Your task to perform on an android device: open sync settings in chrome Image 0: 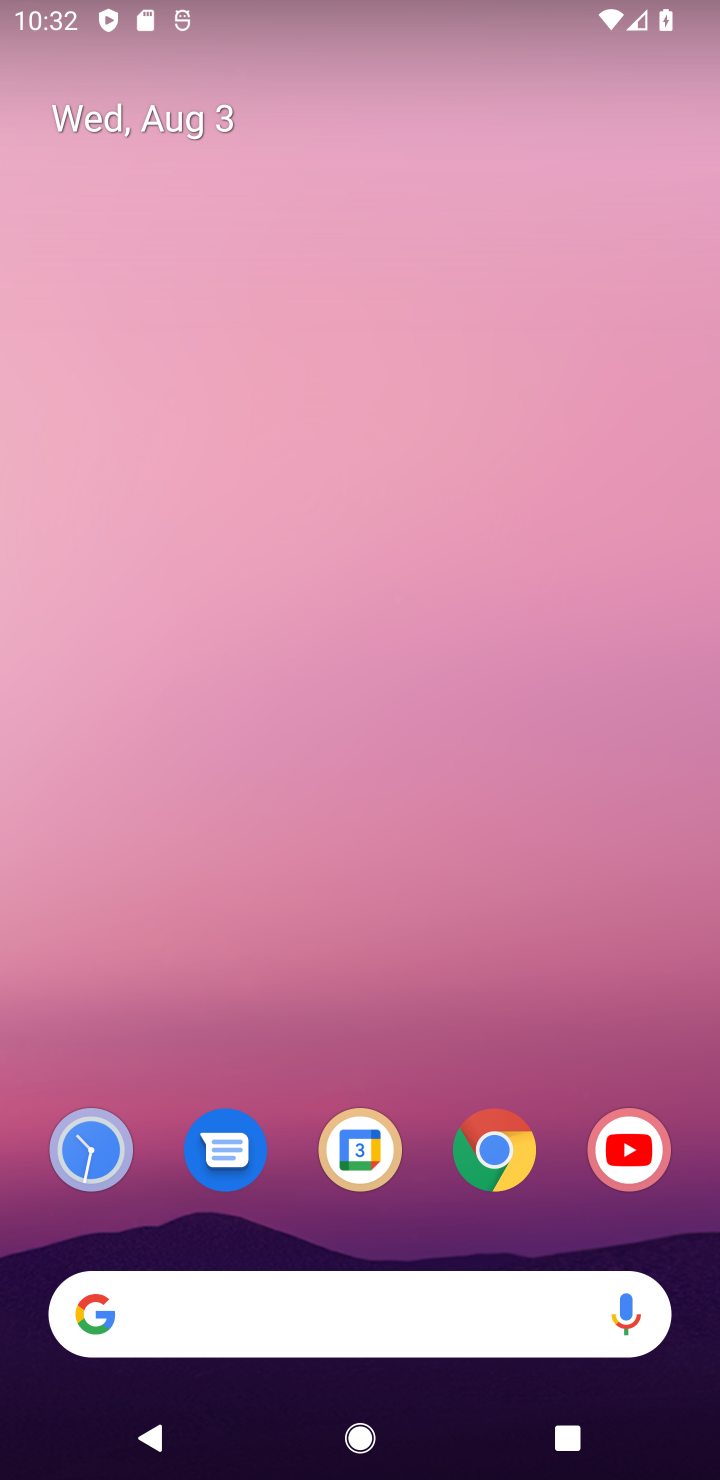
Step 0: press home button
Your task to perform on an android device: open sync settings in chrome Image 1: 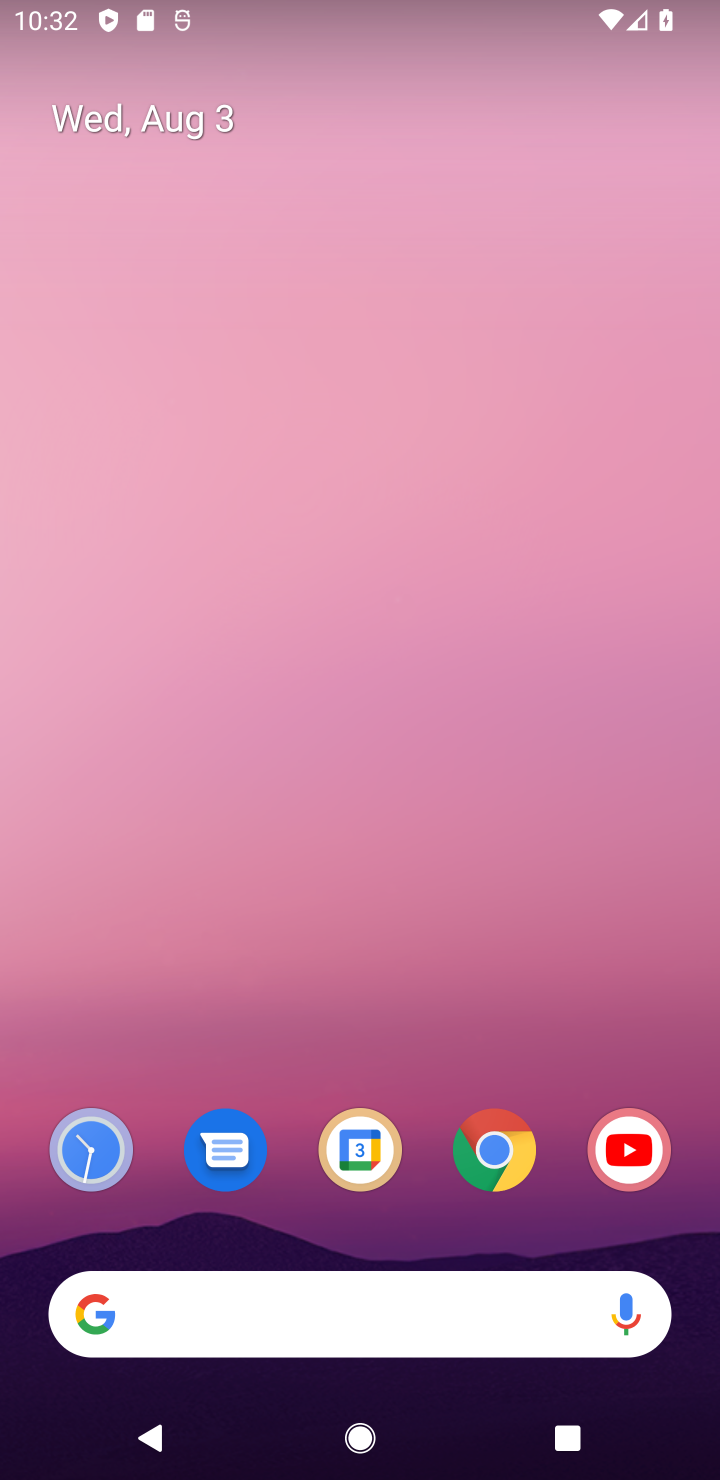
Step 1: drag from (552, 980) to (610, 285)
Your task to perform on an android device: open sync settings in chrome Image 2: 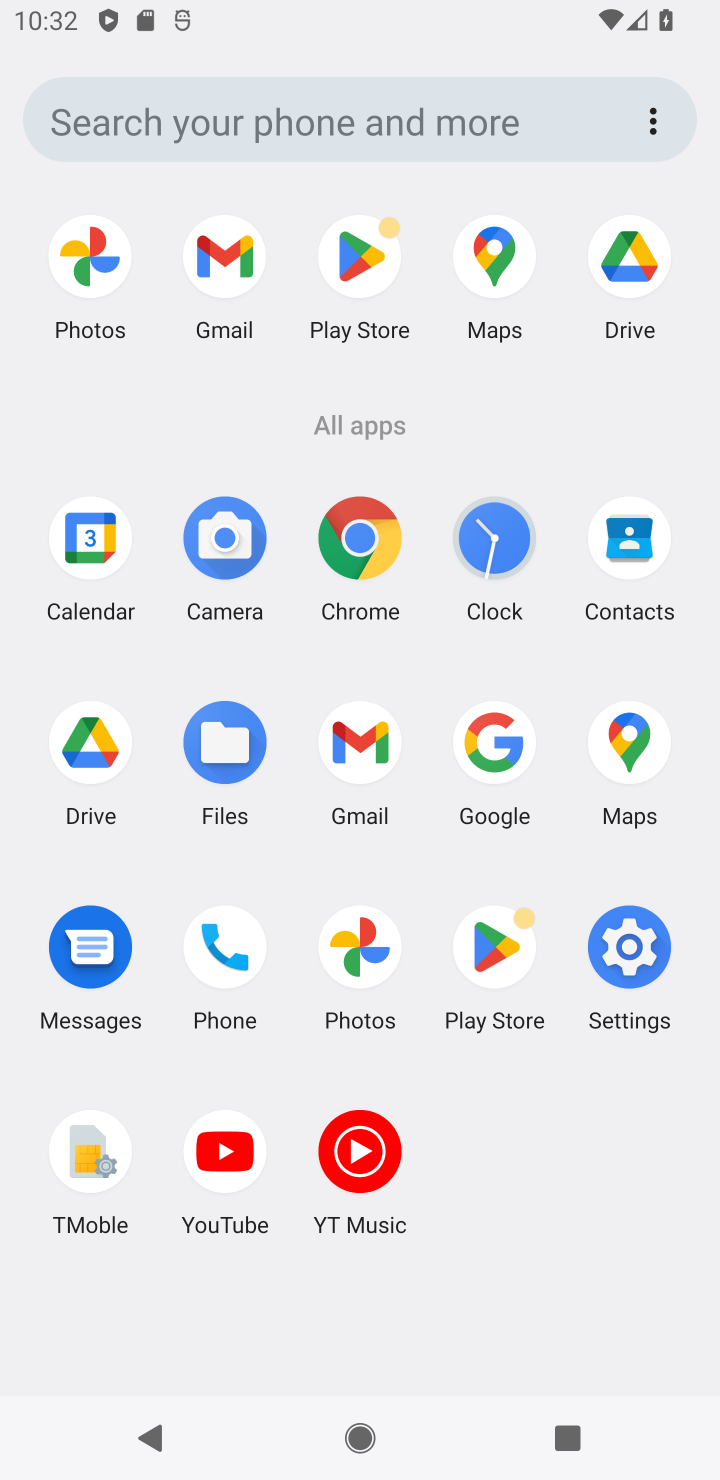
Step 2: click (370, 546)
Your task to perform on an android device: open sync settings in chrome Image 3: 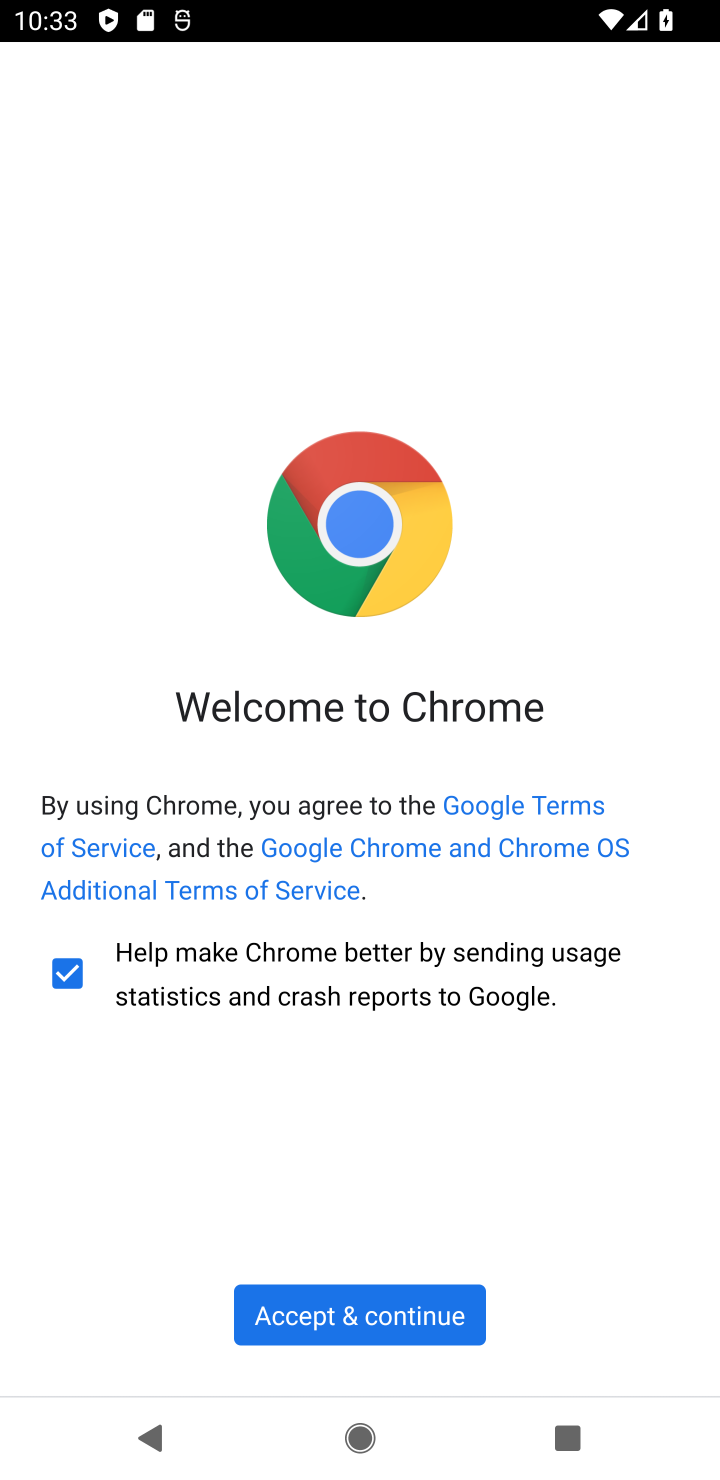
Step 3: click (345, 1316)
Your task to perform on an android device: open sync settings in chrome Image 4: 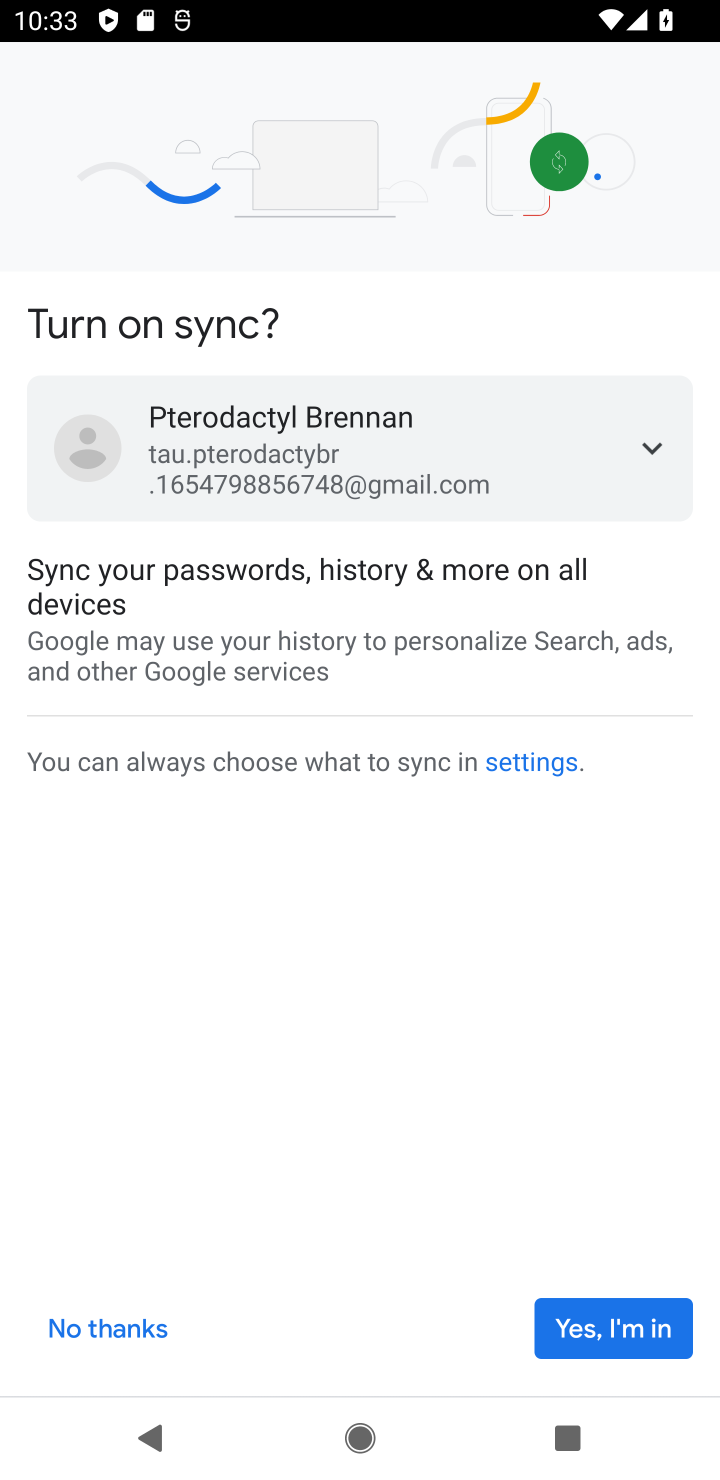
Step 4: click (607, 1334)
Your task to perform on an android device: open sync settings in chrome Image 5: 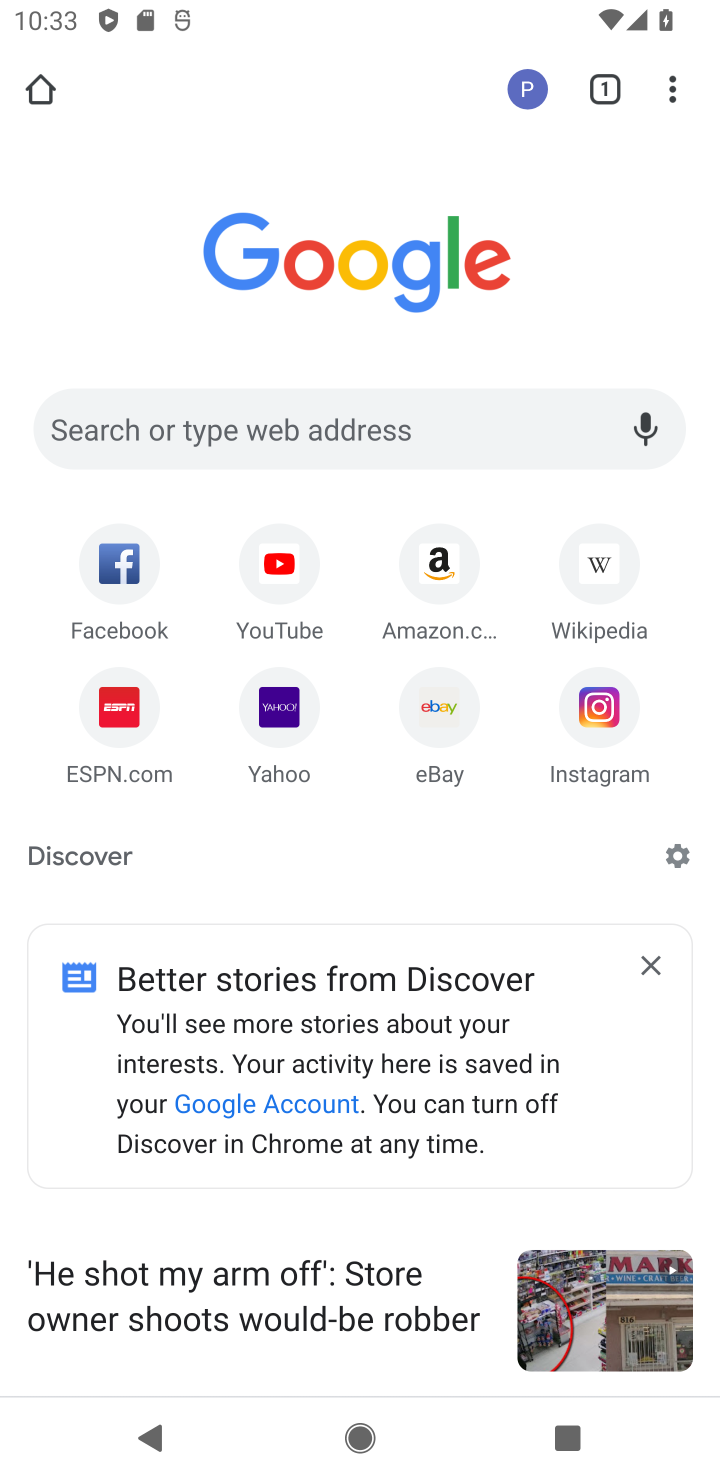
Step 5: click (674, 85)
Your task to perform on an android device: open sync settings in chrome Image 6: 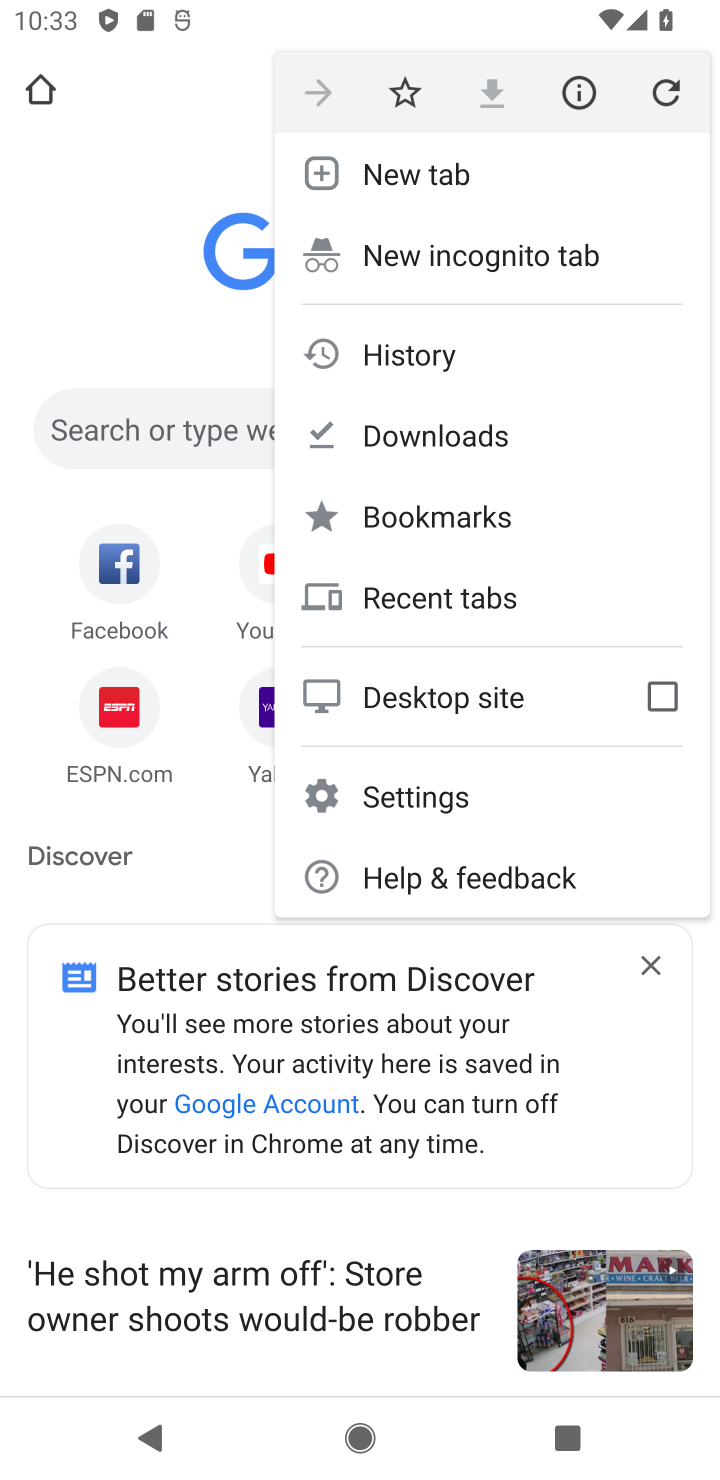
Step 6: click (450, 799)
Your task to perform on an android device: open sync settings in chrome Image 7: 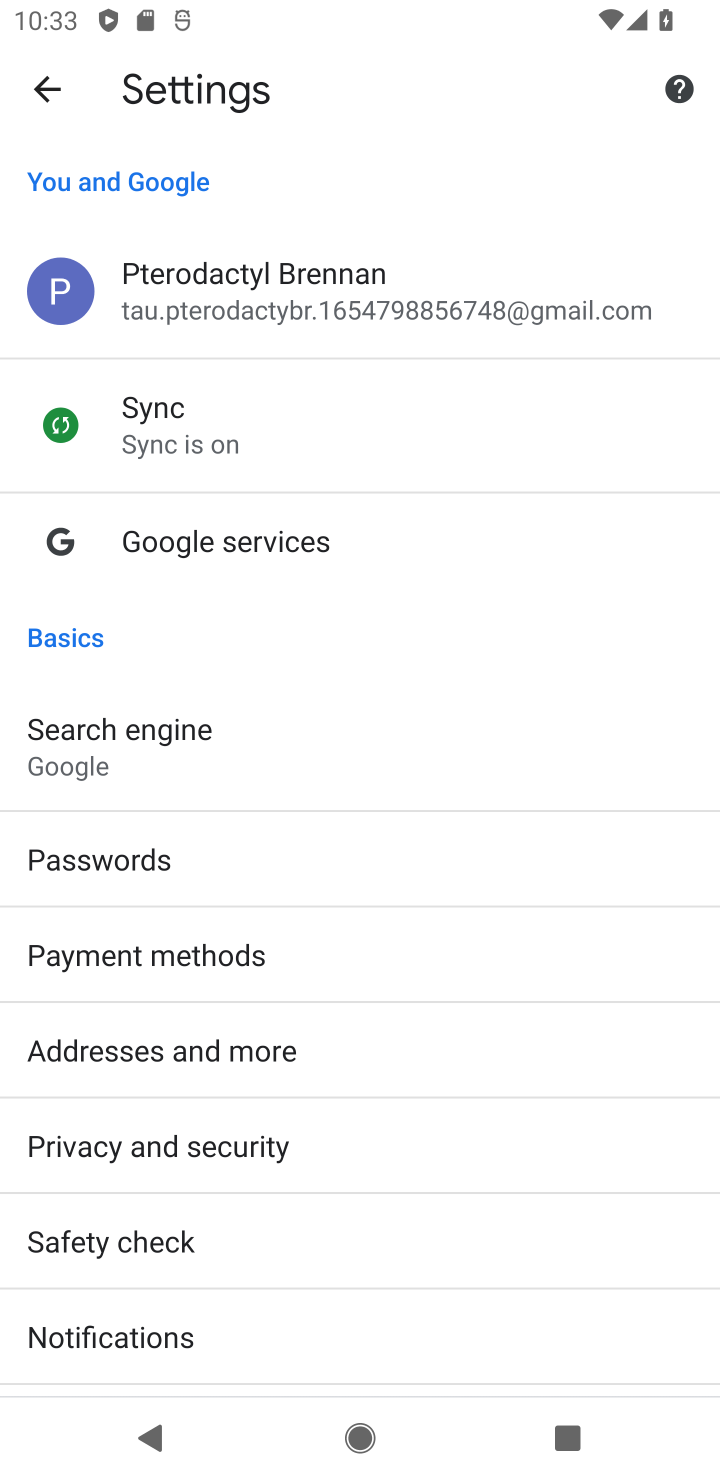
Step 7: drag from (451, 1080) to (497, 767)
Your task to perform on an android device: open sync settings in chrome Image 8: 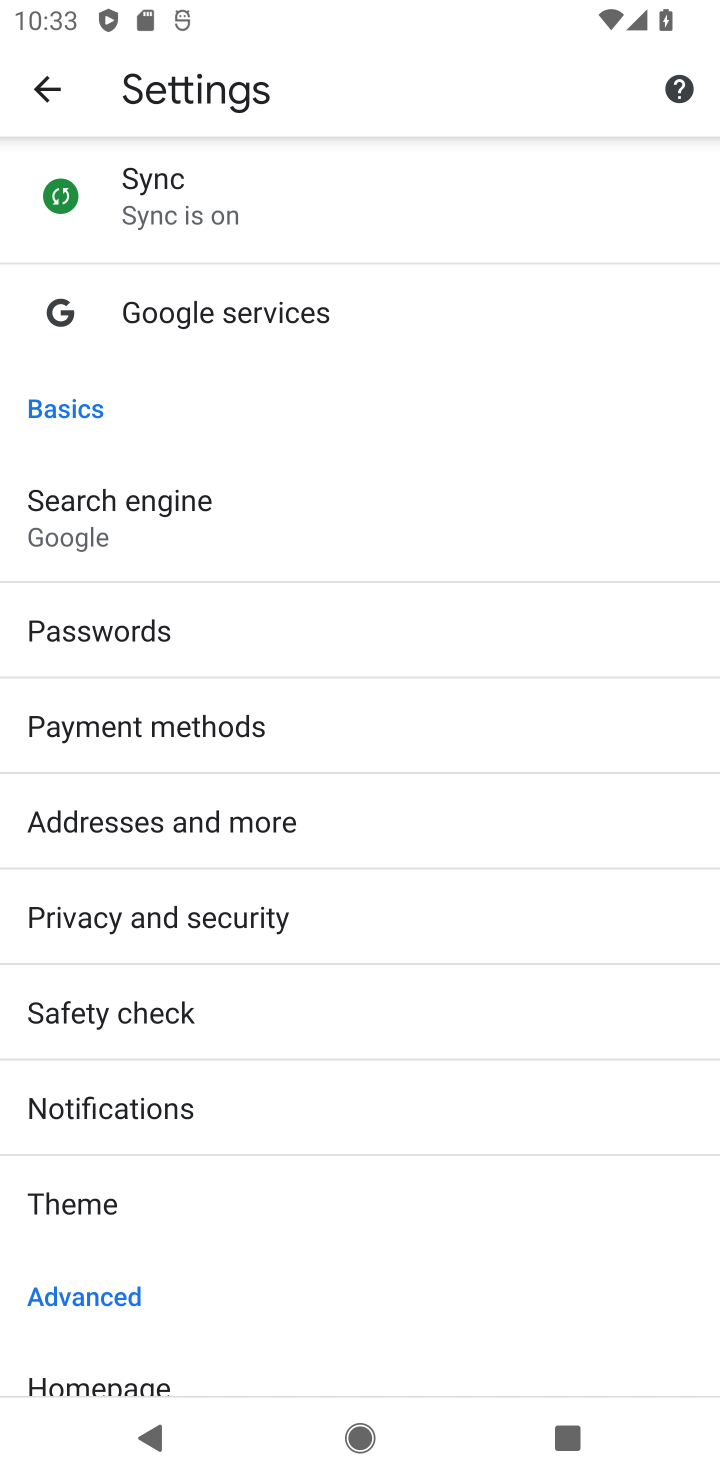
Step 8: drag from (563, 1055) to (589, 769)
Your task to perform on an android device: open sync settings in chrome Image 9: 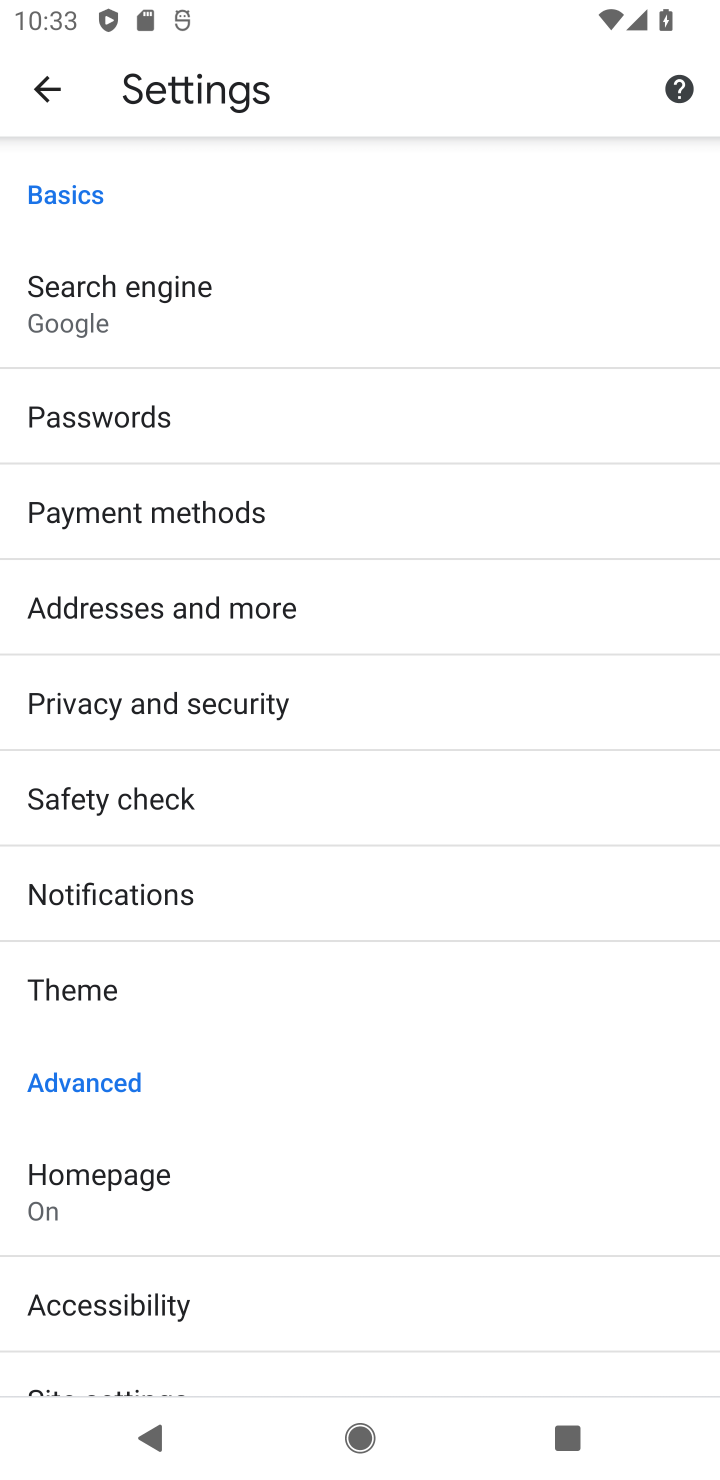
Step 9: drag from (515, 1151) to (534, 797)
Your task to perform on an android device: open sync settings in chrome Image 10: 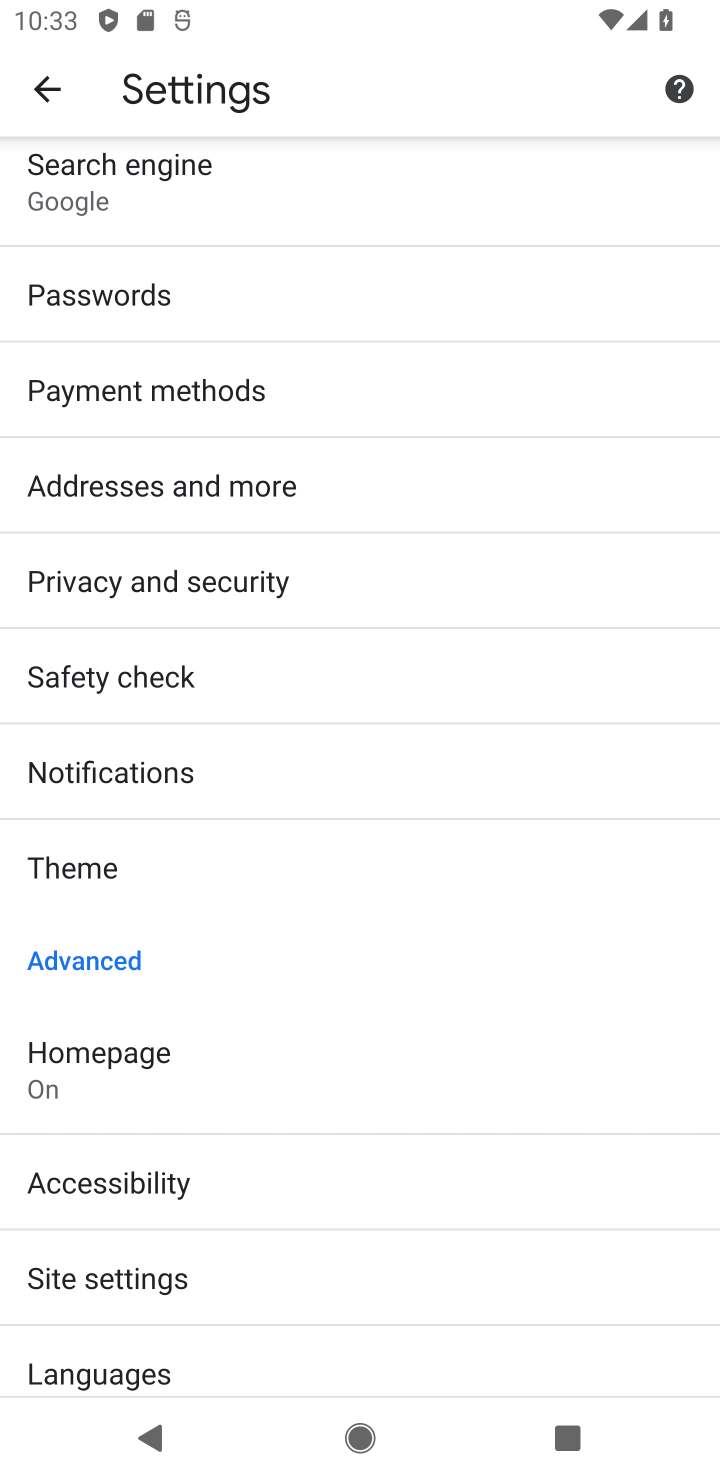
Step 10: drag from (527, 1190) to (530, 856)
Your task to perform on an android device: open sync settings in chrome Image 11: 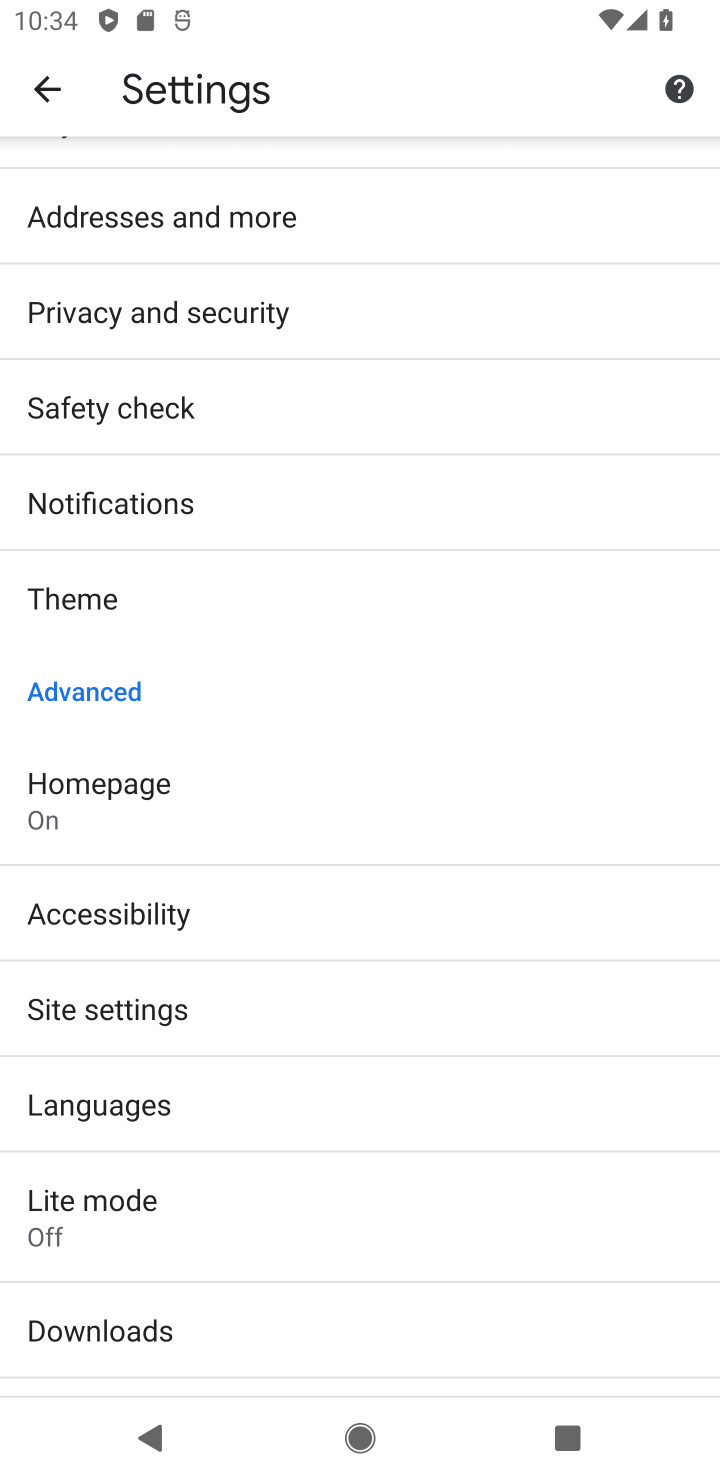
Step 11: click (325, 994)
Your task to perform on an android device: open sync settings in chrome Image 12: 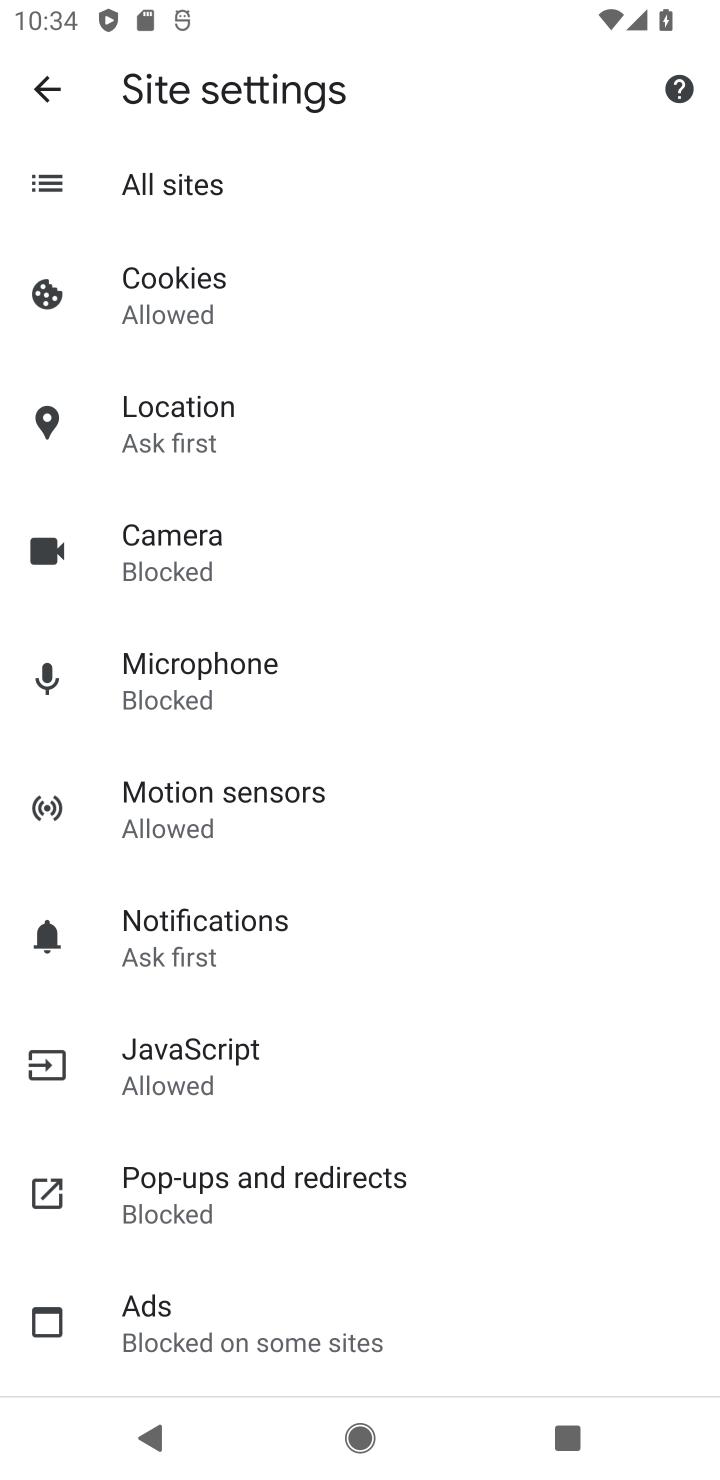
Step 12: drag from (578, 1137) to (565, 880)
Your task to perform on an android device: open sync settings in chrome Image 13: 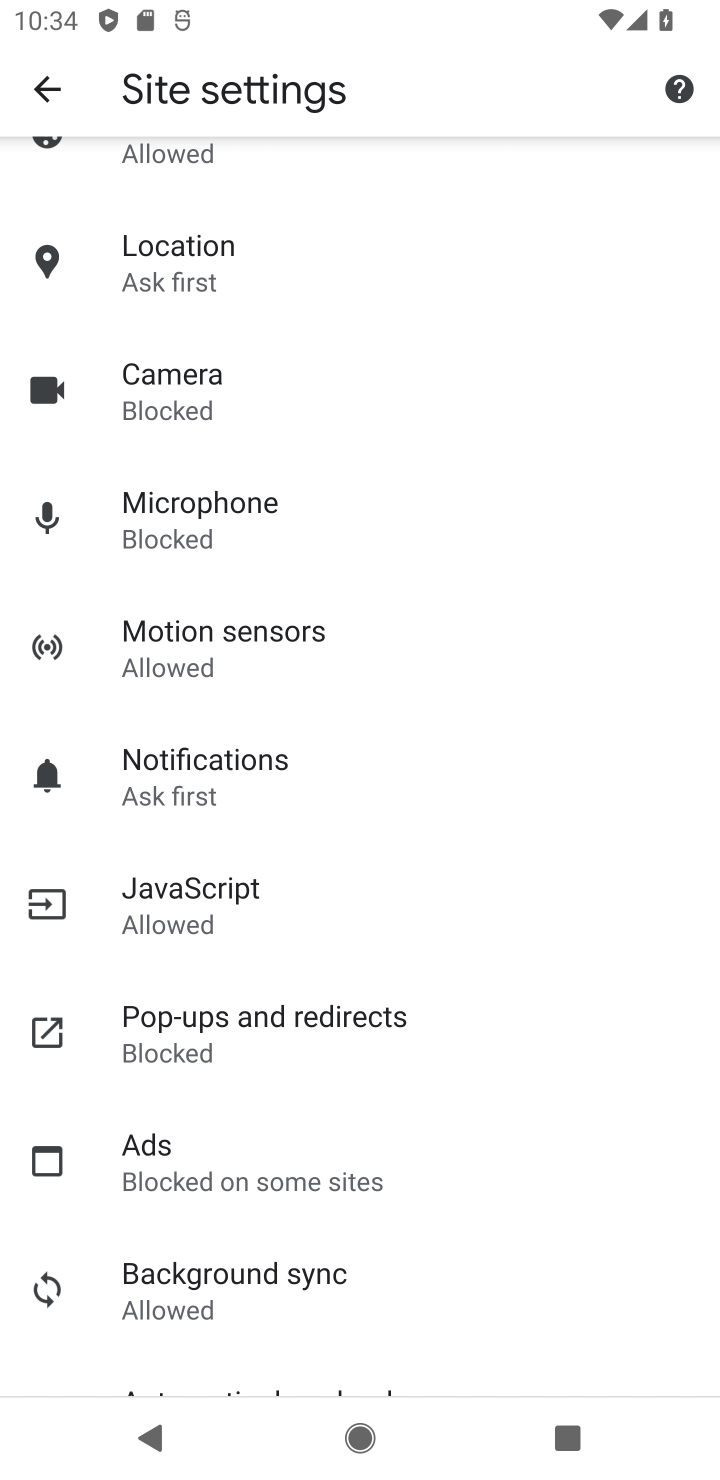
Step 13: drag from (559, 1161) to (582, 917)
Your task to perform on an android device: open sync settings in chrome Image 14: 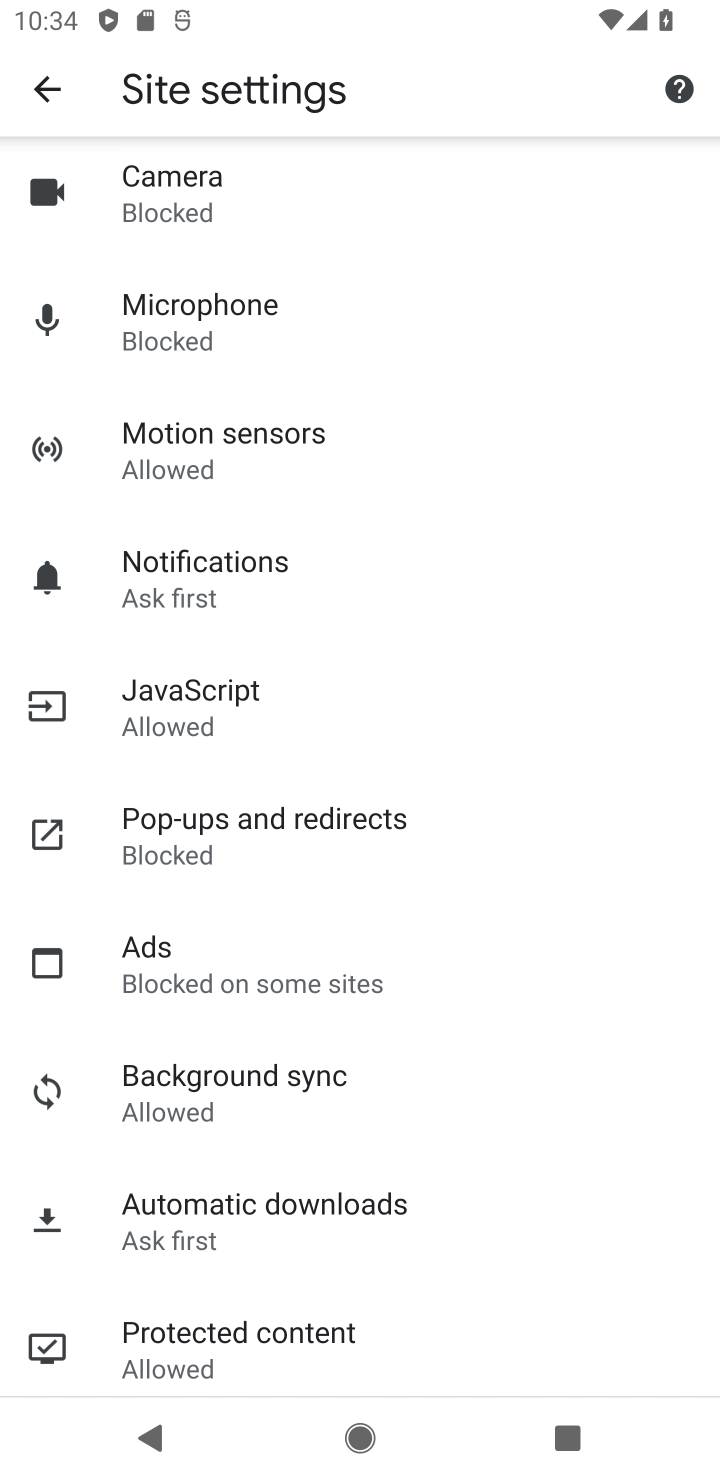
Step 14: click (249, 1099)
Your task to perform on an android device: open sync settings in chrome Image 15: 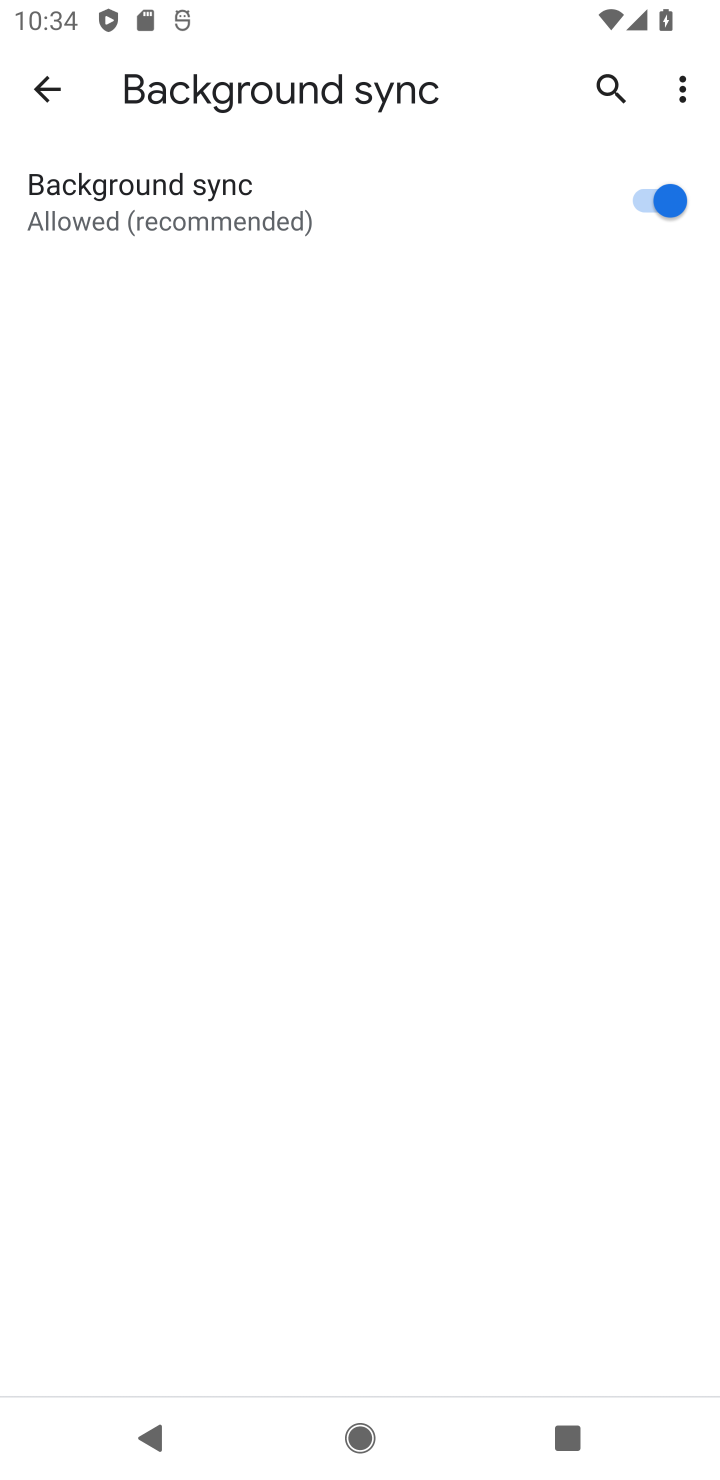
Step 15: task complete